Your task to perform on an android device: all mails in gmail Image 0: 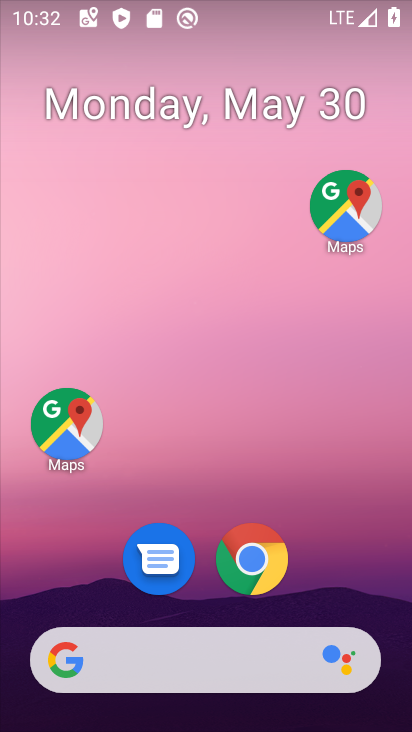
Step 0: drag from (301, 522) to (304, 52)
Your task to perform on an android device: all mails in gmail Image 1: 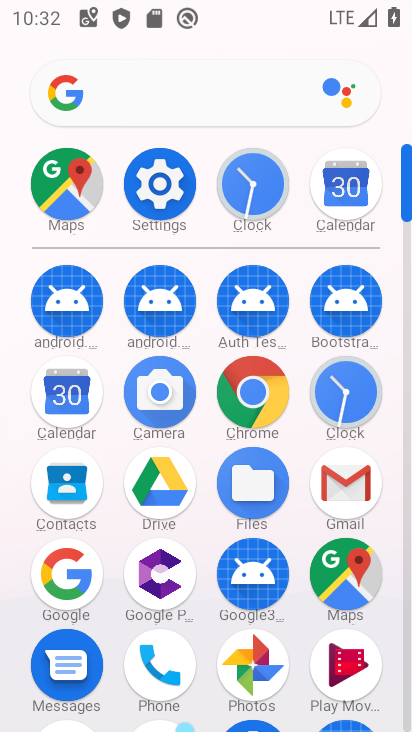
Step 1: click (336, 481)
Your task to perform on an android device: all mails in gmail Image 2: 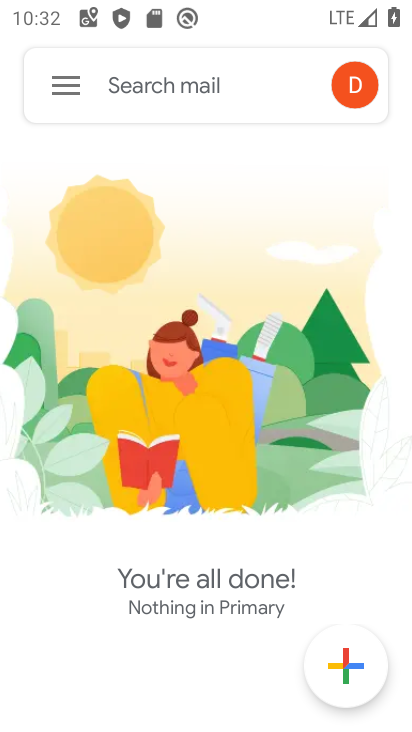
Step 2: click (76, 77)
Your task to perform on an android device: all mails in gmail Image 3: 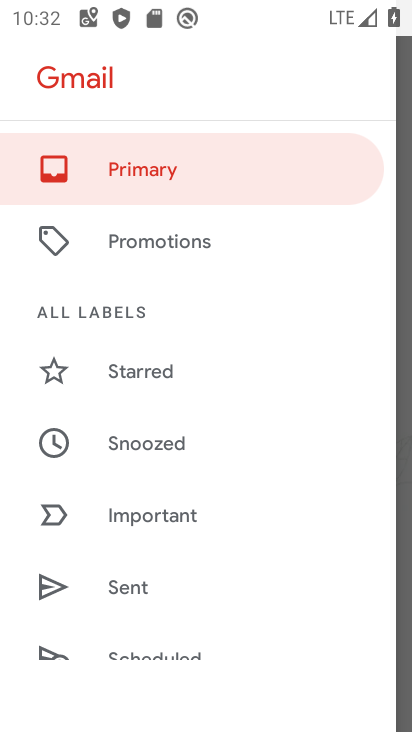
Step 3: drag from (164, 593) to (250, 146)
Your task to perform on an android device: all mails in gmail Image 4: 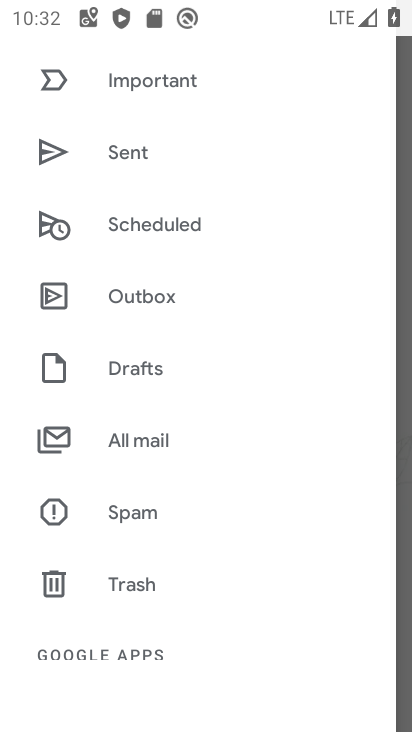
Step 4: click (150, 450)
Your task to perform on an android device: all mails in gmail Image 5: 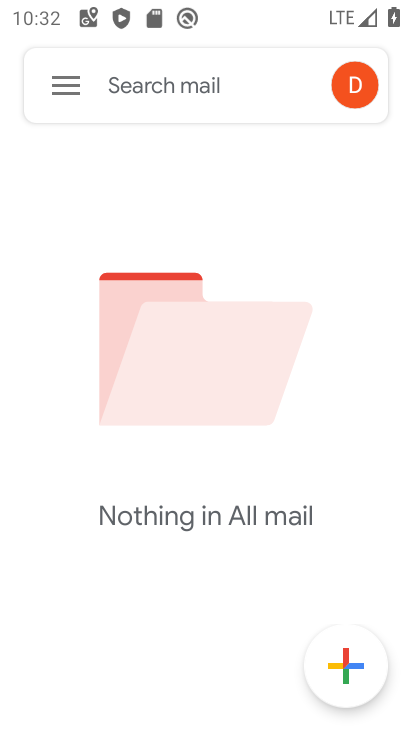
Step 5: task complete